Your task to perform on an android device: change timer sound Image 0: 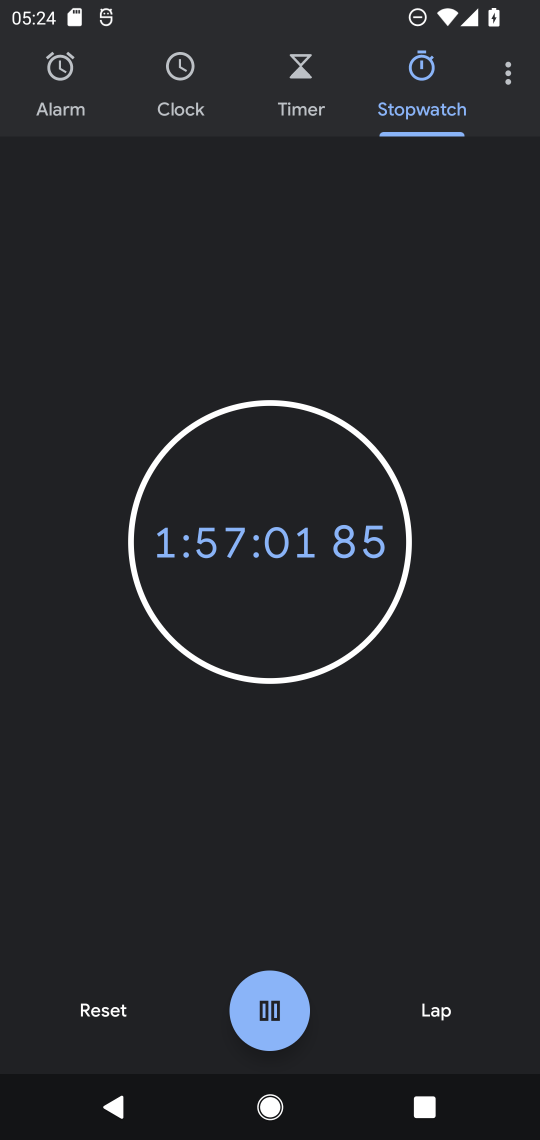
Step 0: press home button
Your task to perform on an android device: change timer sound Image 1: 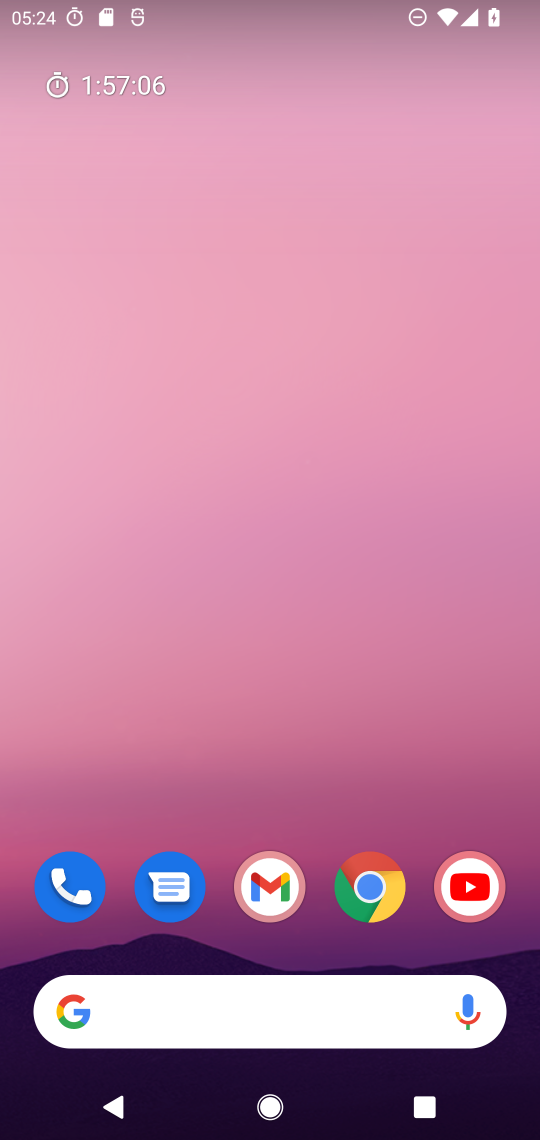
Step 1: drag from (310, 769) to (341, 318)
Your task to perform on an android device: change timer sound Image 2: 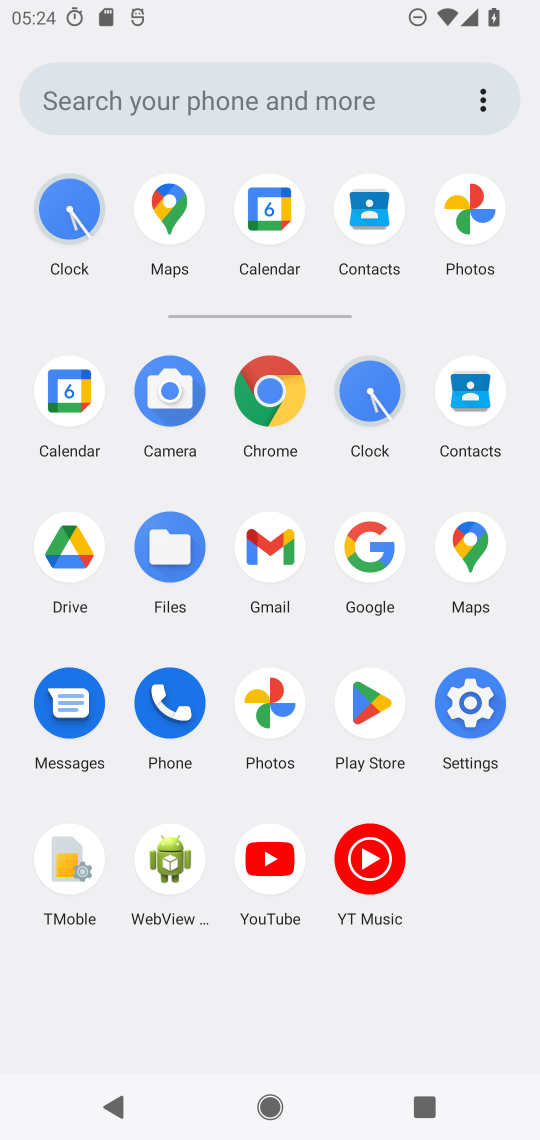
Step 2: click (374, 396)
Your task to perform on an android device: change timer sound Image 3: 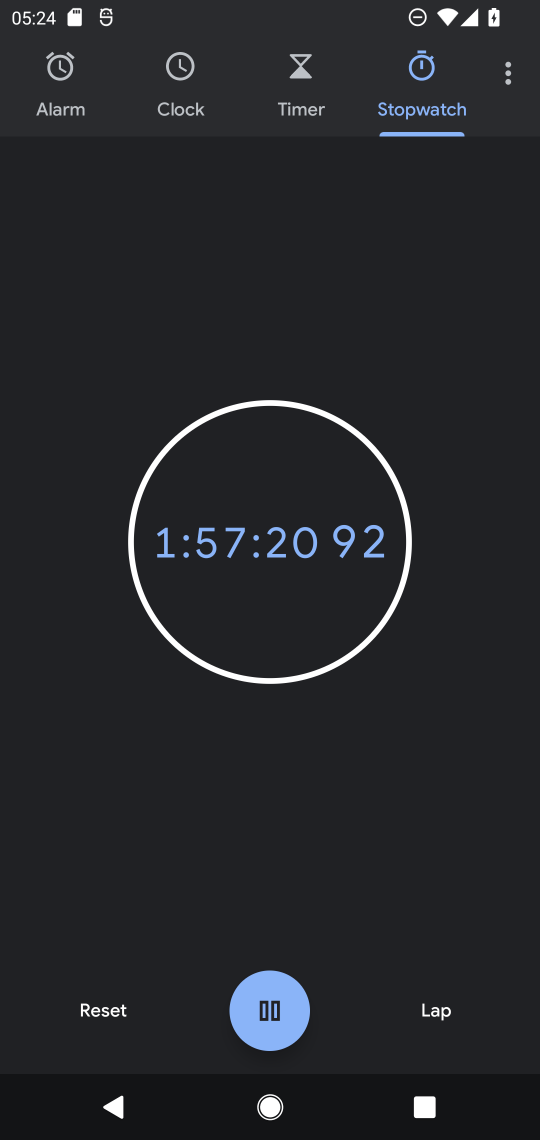
Step 3: click (510, 81)
Your task to perform on an android device: change timer sound Image 4: 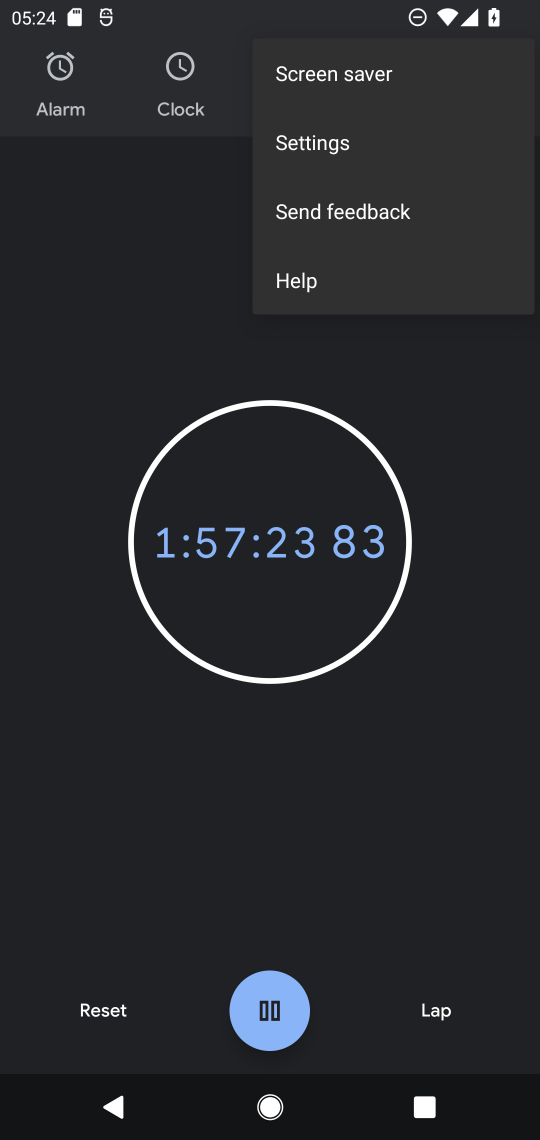
Step 4: click (350, 160)
Your task to perform on an android device: change timer sound Image 5: 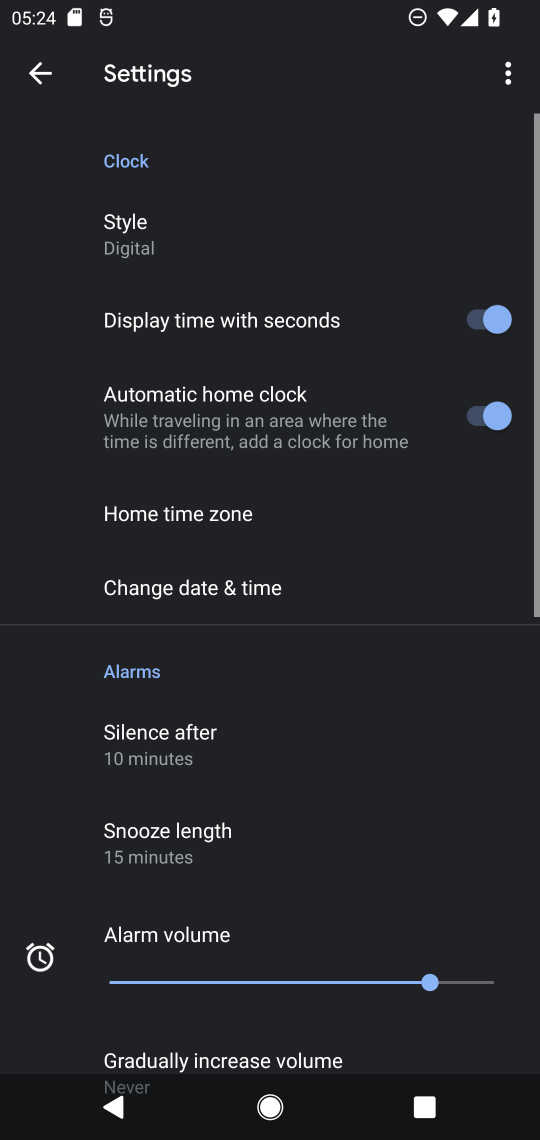
Step 5: drag from (397, 644) to (398, 342)
Your task to perform on an android device: change timer sound Image 6: 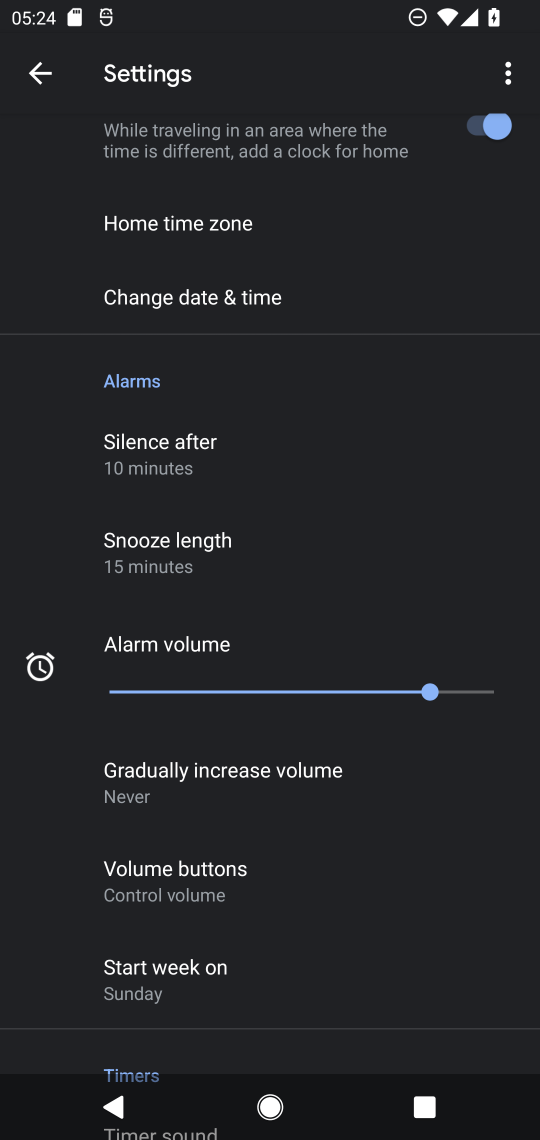
Step 6: drag from (380, 573) to (365, 370)
Your task to perform on an android device: change timer sound Image 7: 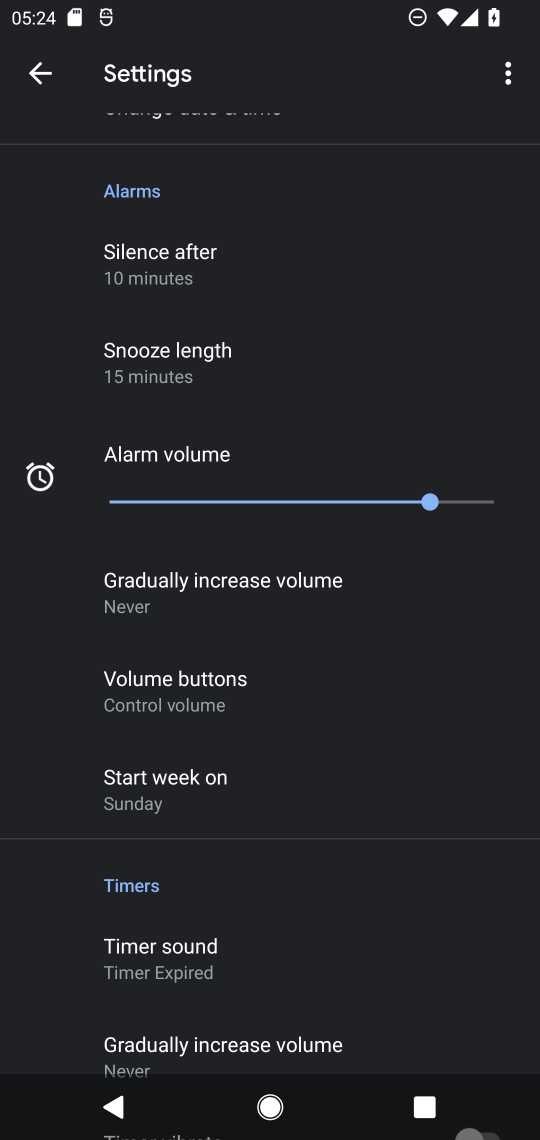
Step 7: drag from (388, 618) to (400, 469)
Your task to perform on an android device: change timer sound Image 8: 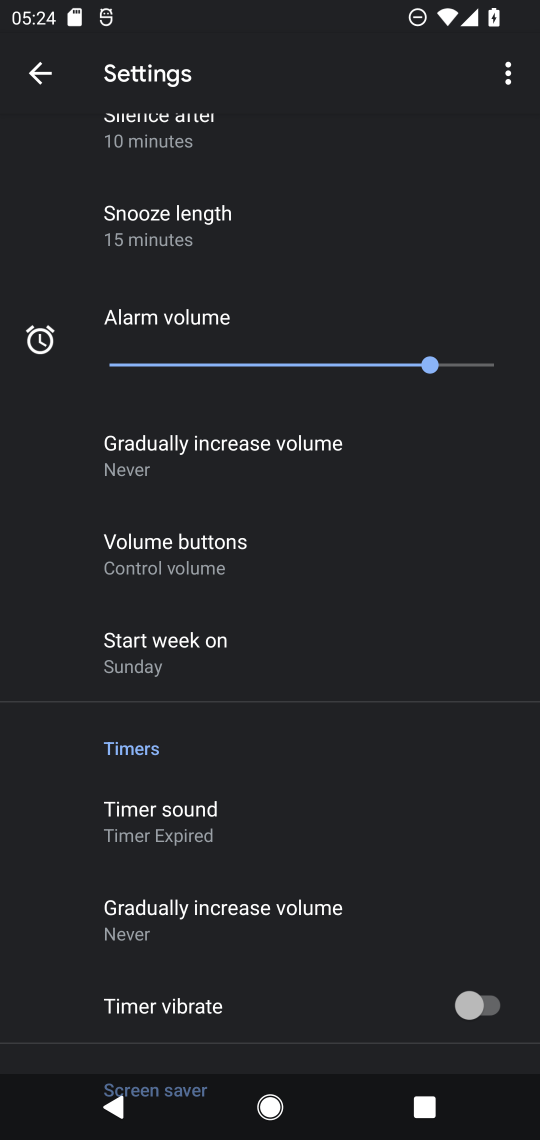
Step 8: drag from (412, 671) to (424, 493)
Your task to perform on an android device: change timer sound Image 9: 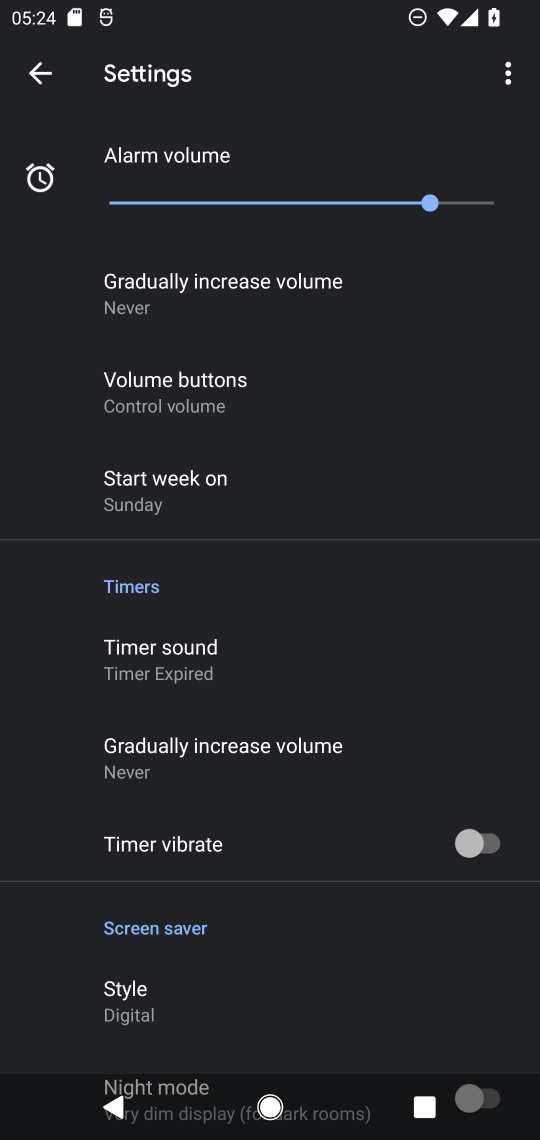
Step 9: drag from (402, 649) to (407, 479)
Your task to perform on an android device: change timer sound Image 10: 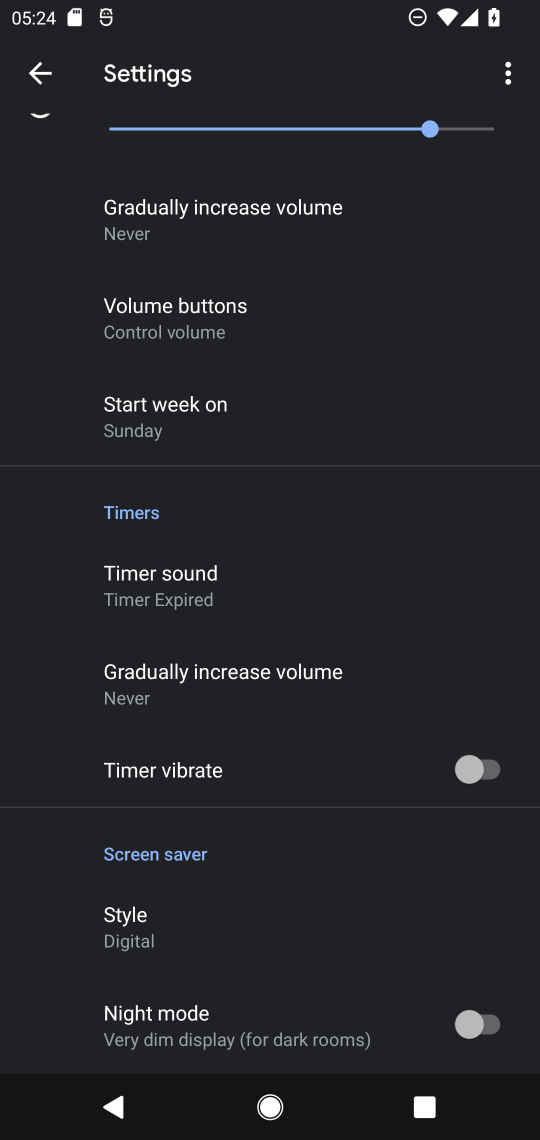
Step 10: click (331, 573)
Your task to perform on an android device: change timer sound Image 11: 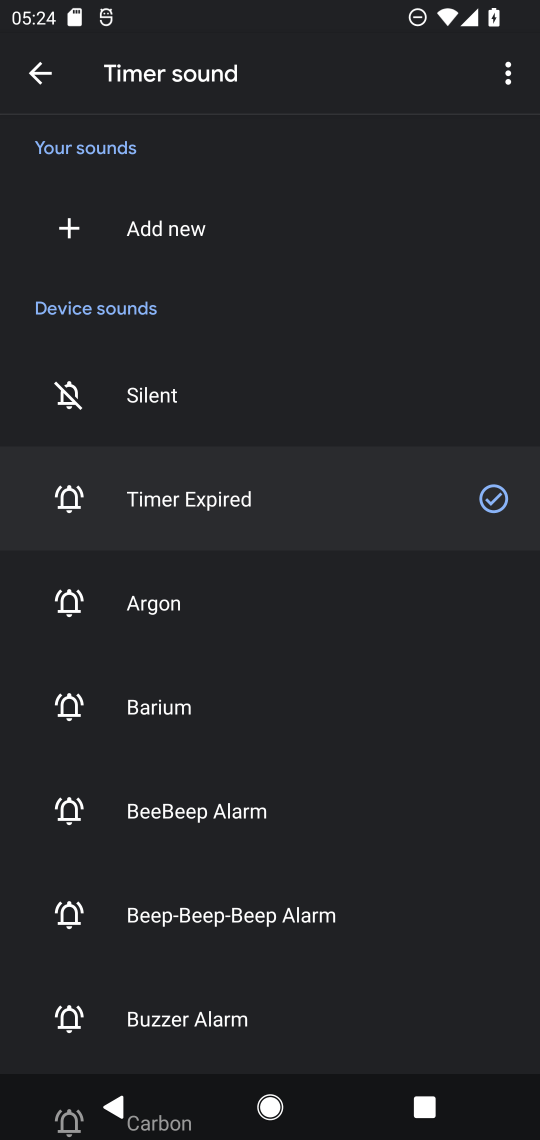
Step 11: click (177, 715)
Your task to perform on an android device: change timer sound Image 12: 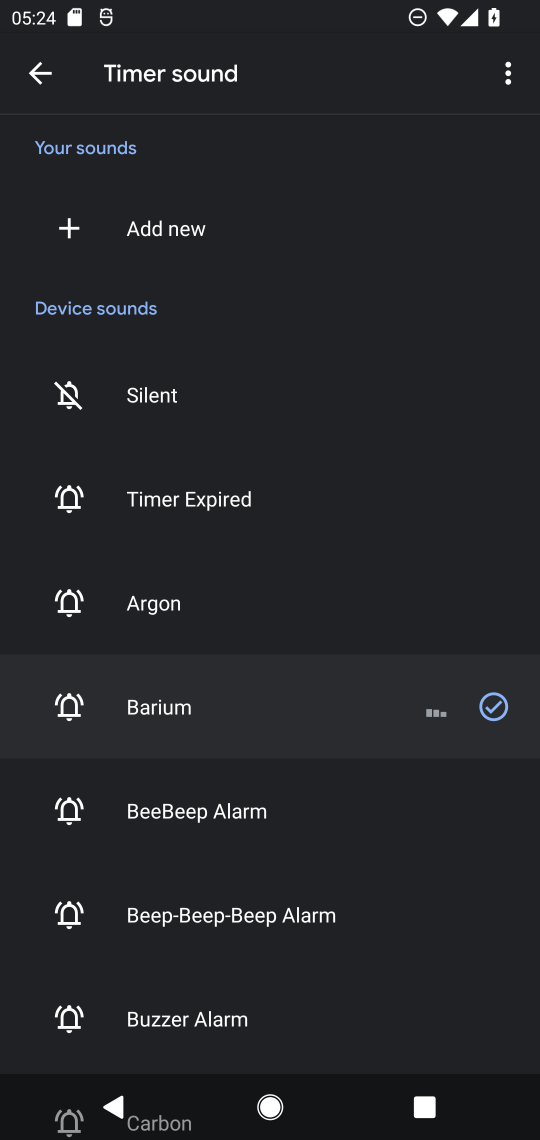
Step 12: task complete